Your task to perform on an android device: Clear the cart on target. Add usb-c to usb-b to the cart on target, then select checkout. Image 0: 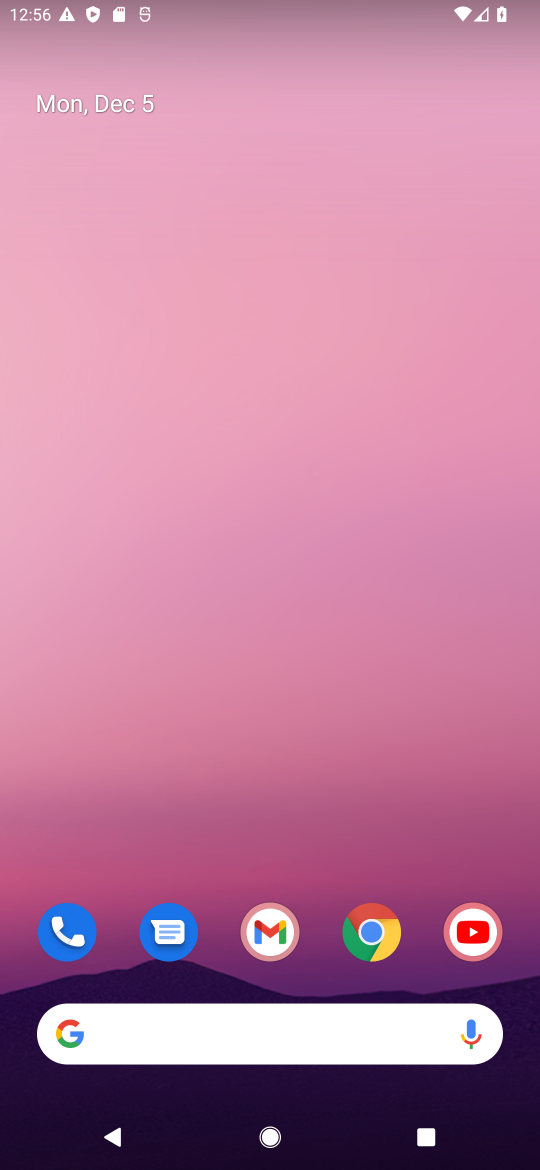
Step 0: click (356, 942)
Your task to perform on an android device: Clear the cart on target. Add usb-c to usb-b to the cart on target, then select checkout. Image 1: 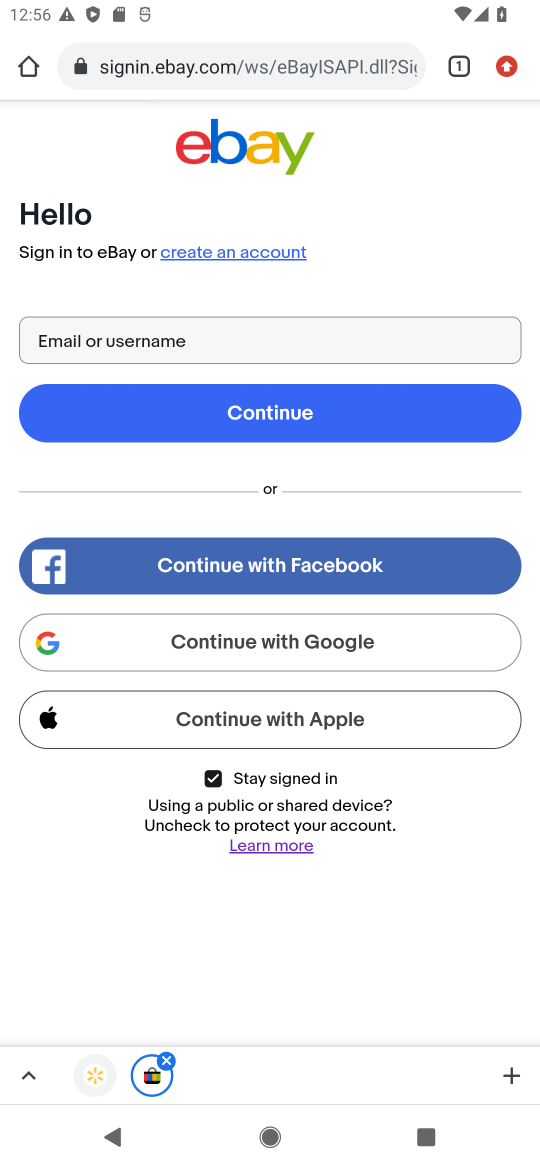
Step 1: click (205, 50)
Your task to perform on an android device: Clear the cart on target. Add usb-c to usb-b to the cart on target, then select checkout. Image 2: 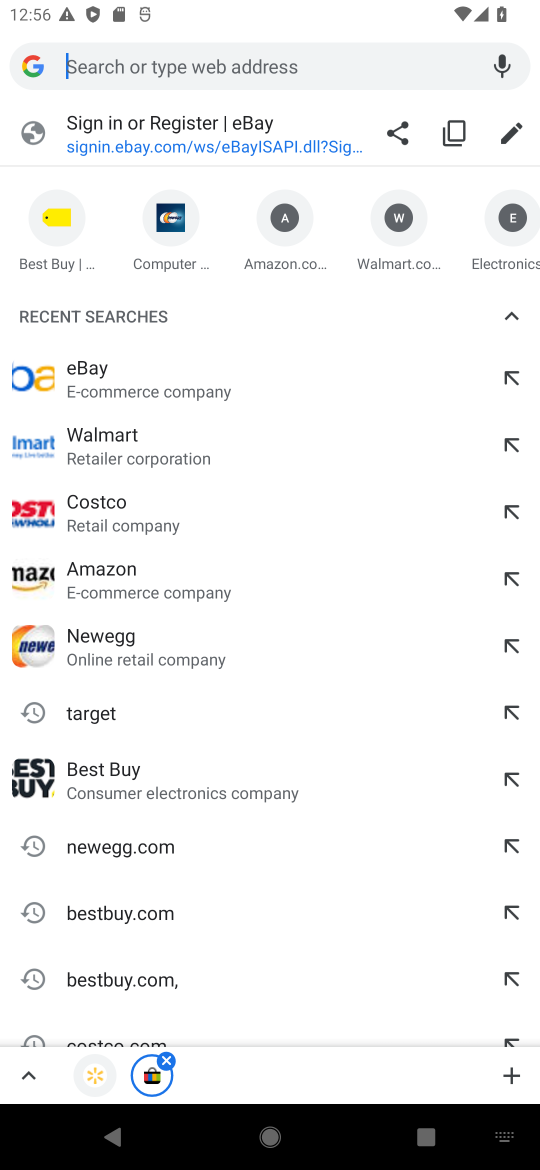
Step 2: click (115, 712)
Your task to perform on an android device: Clear the cart on target. Add usb-c to usb-b to the cart on target, then select checkout. Image 3: 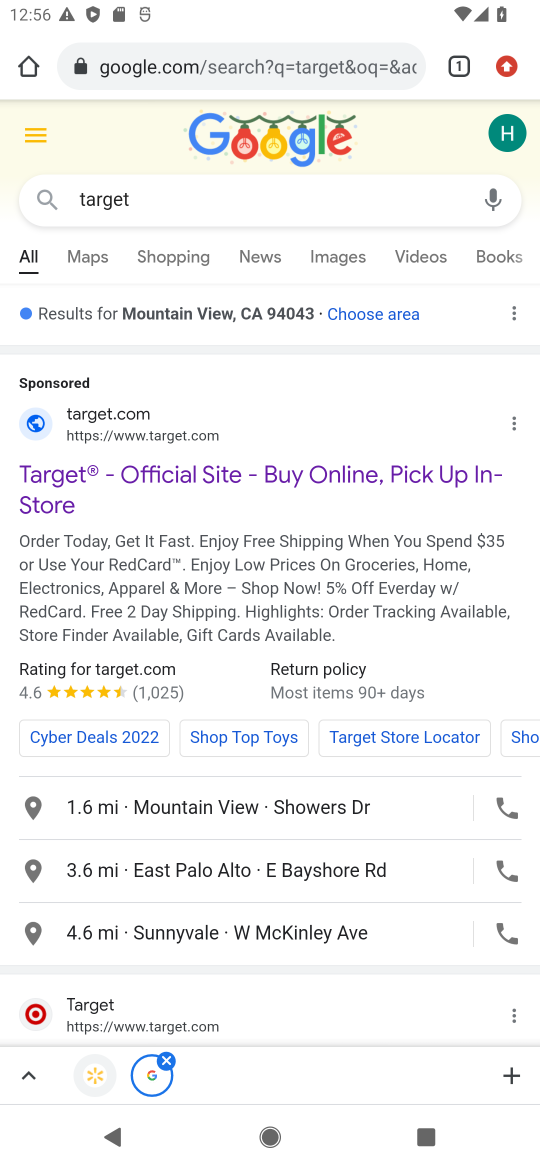
Step 3: click (180, 468)
Your task to perform on an android device: Clear the cart on target. Add usb-c to usb-b to the cart on target, then select checkout. Image 4: 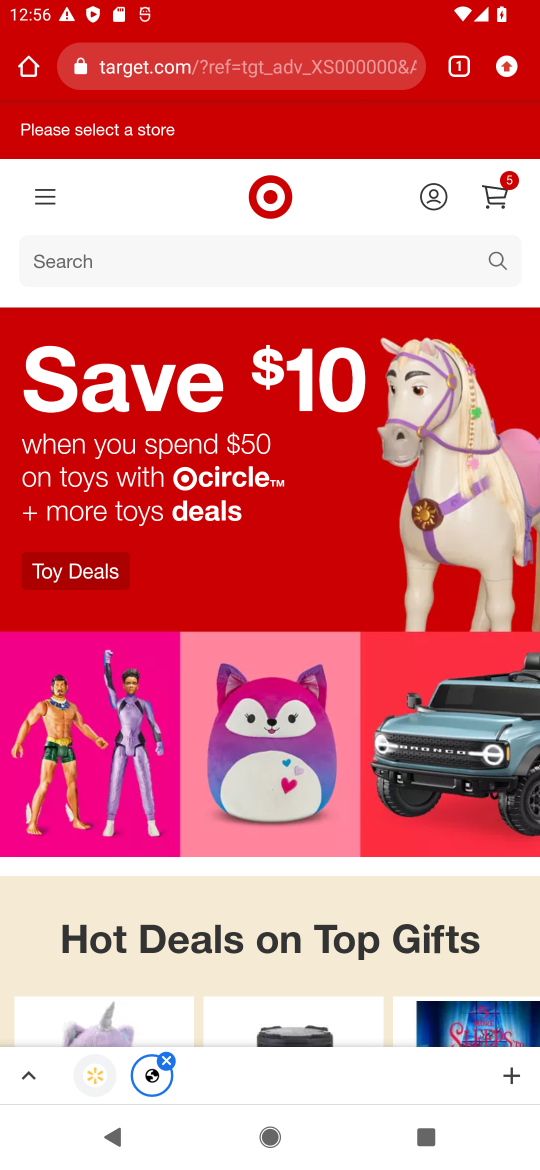
Step 4: click (293, 258)
Your task to perform on an android device: Clear the cart on target. Add usb-c to usb-b to the cart on target, then select checkout. Image 5: 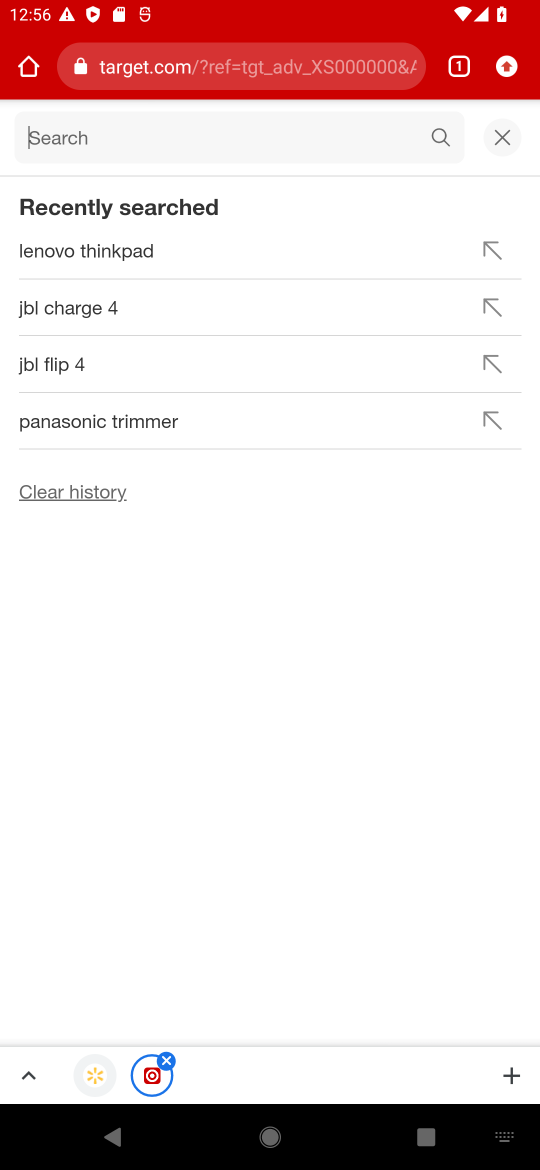
Step 5: type "usb-c to usb-b"
Your task to perform on an android device: Clear the cart on target. Add usb-c to usb-b to the cart on target, then select checkout. Image 6: 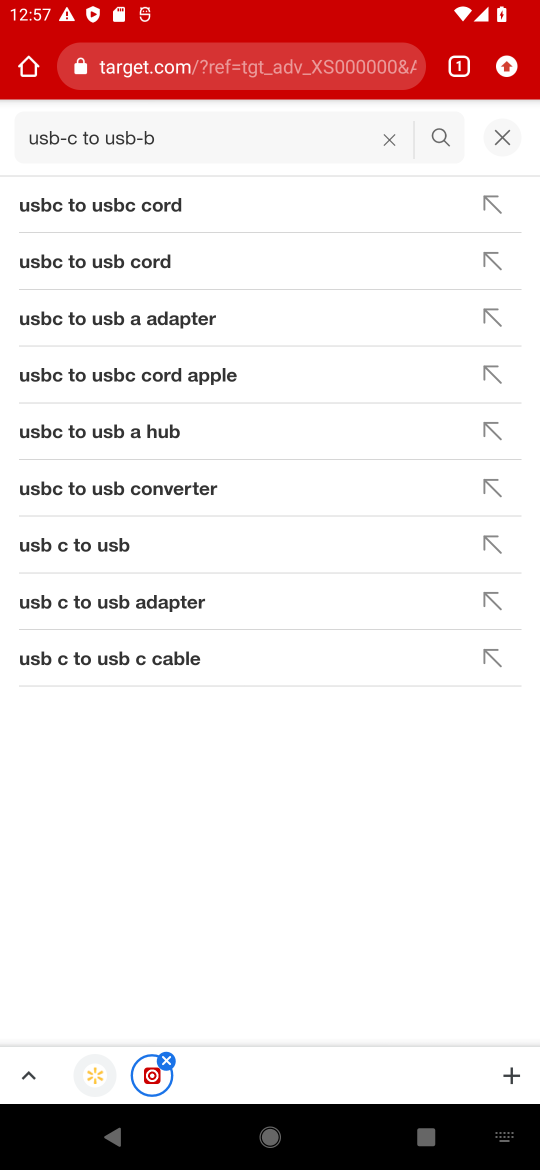
Step 6: click (148, 196)
Your task to perform on an android device: Clear the cart on target. Add usb-c to usb-b to the cart on target, then select checkout. Image 7: 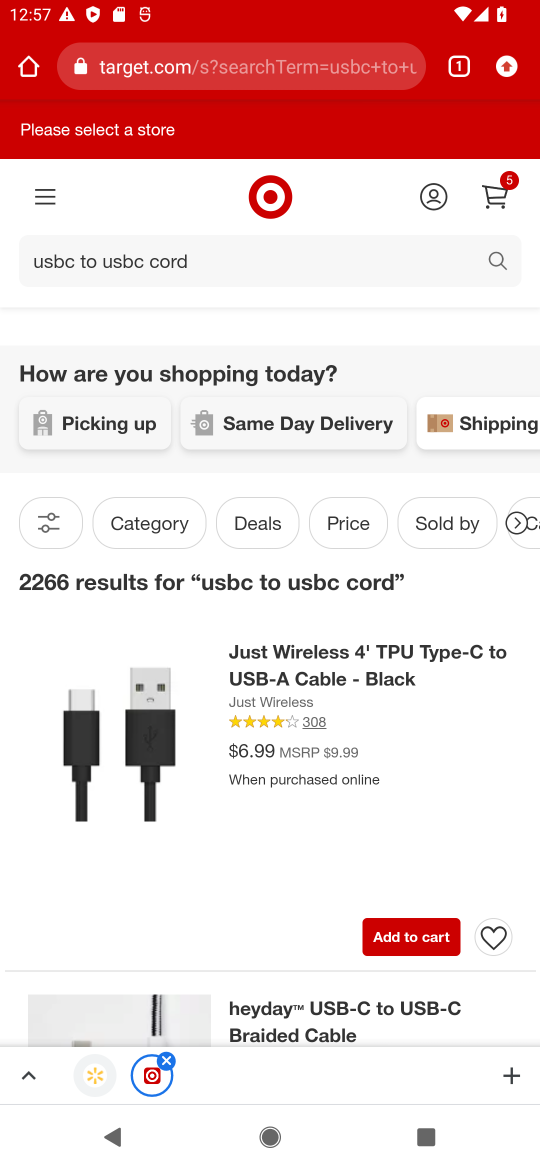
Step 7: click (396, 934)
Your task to perform on an android device: Clear the cart on target. Add usb-c to usb-b to the cart on target, then select checkout. Image 8: 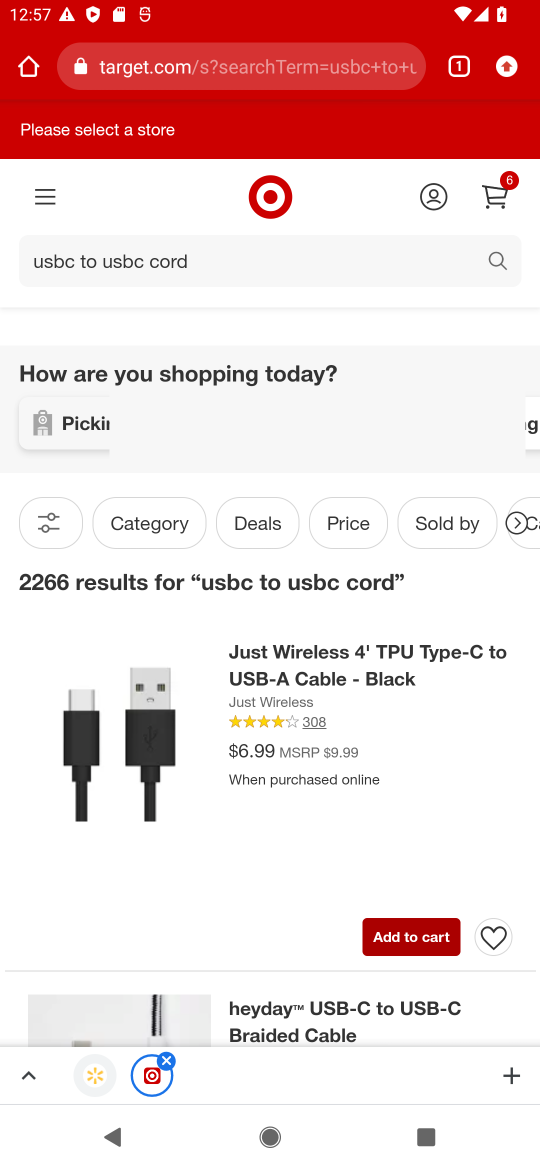
Step 8: click (500, 183)
Your task to perform on an android device: Clear the cart on target. Add usb-c to usb-b to the cart on target, then select checkout. Image 9: 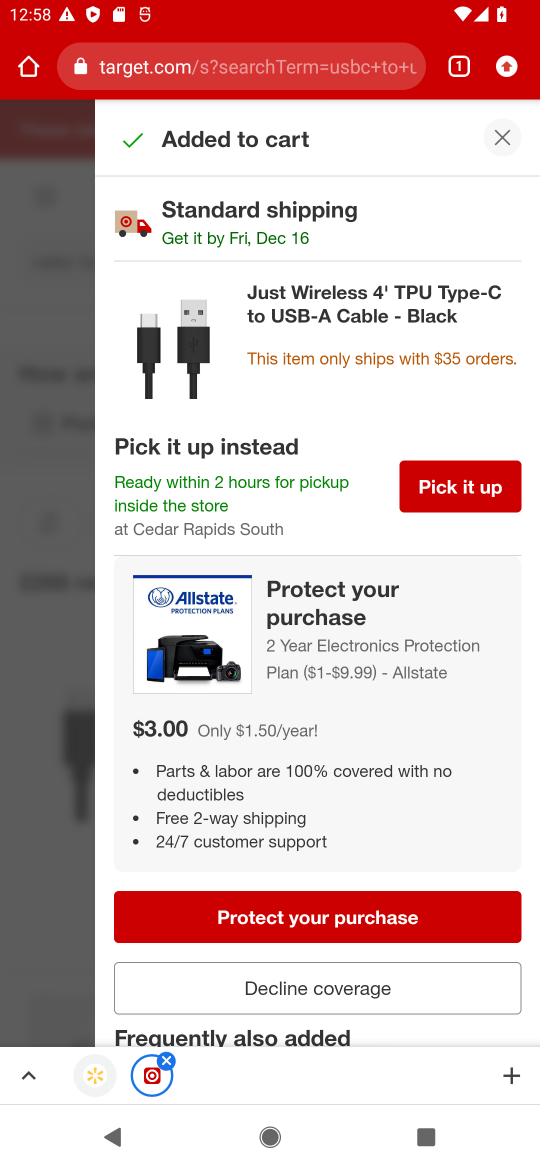
Step 9: click (503, 134)
Your task to perform on an android device: Clear the cart on target. Add usb-c to usb-b to the cart on target, then select checkout. Image 10: 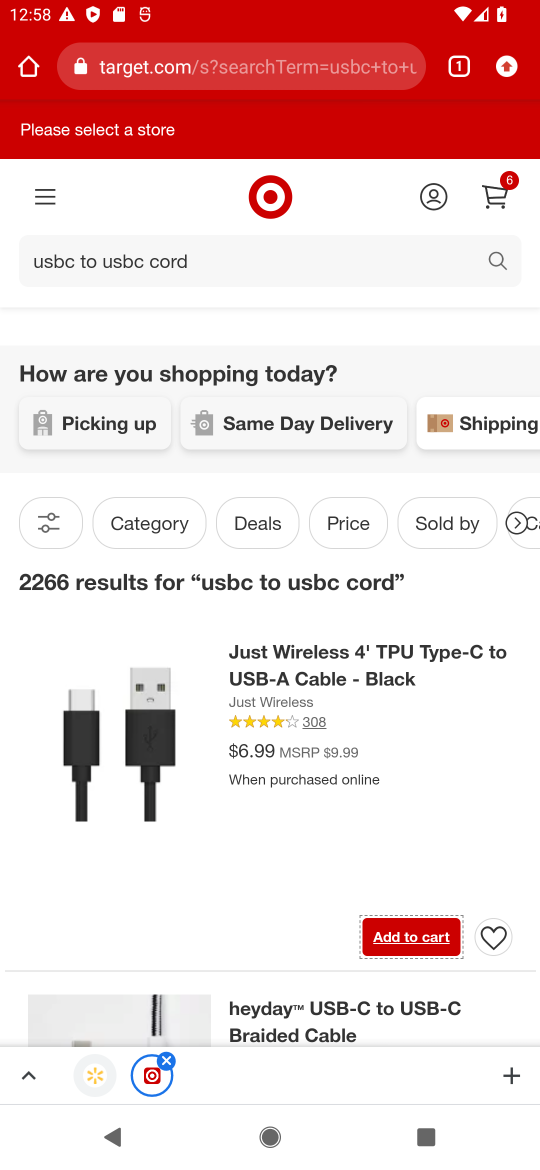
Step 10: click (506, 178)
Your task to perform on an android device: Clear the cart on target. Add usb-c to usb-b to the cart on target, then select checkout. Image 11: 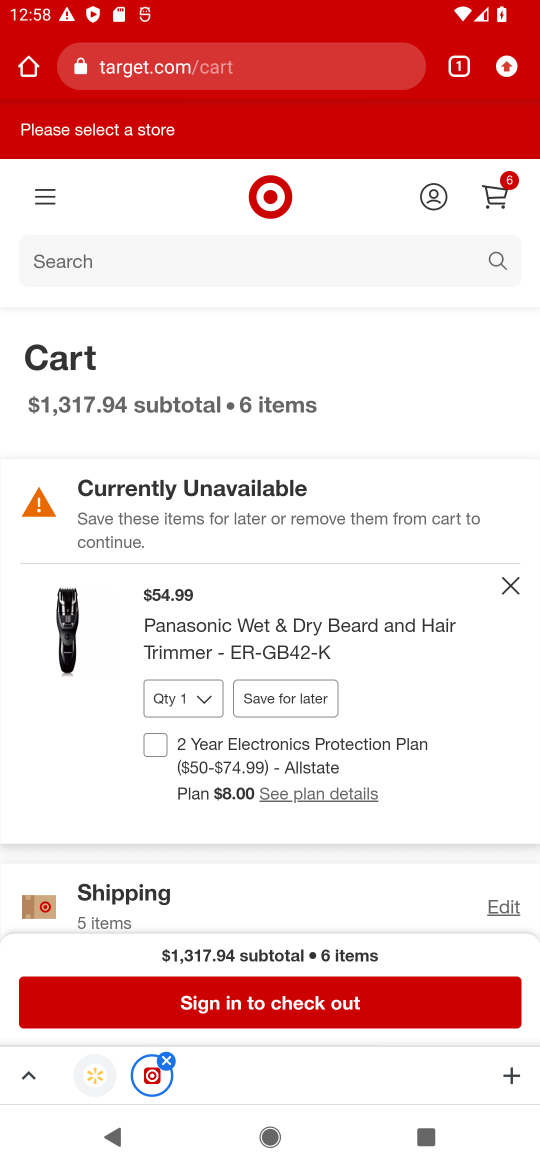
Step 11: drag from (408, 793) to (361, 654)
Your task to perform on an android device: Clear the cart on target. Add usb-c to usb-b to the cart on target, then select checkout. Image 12: 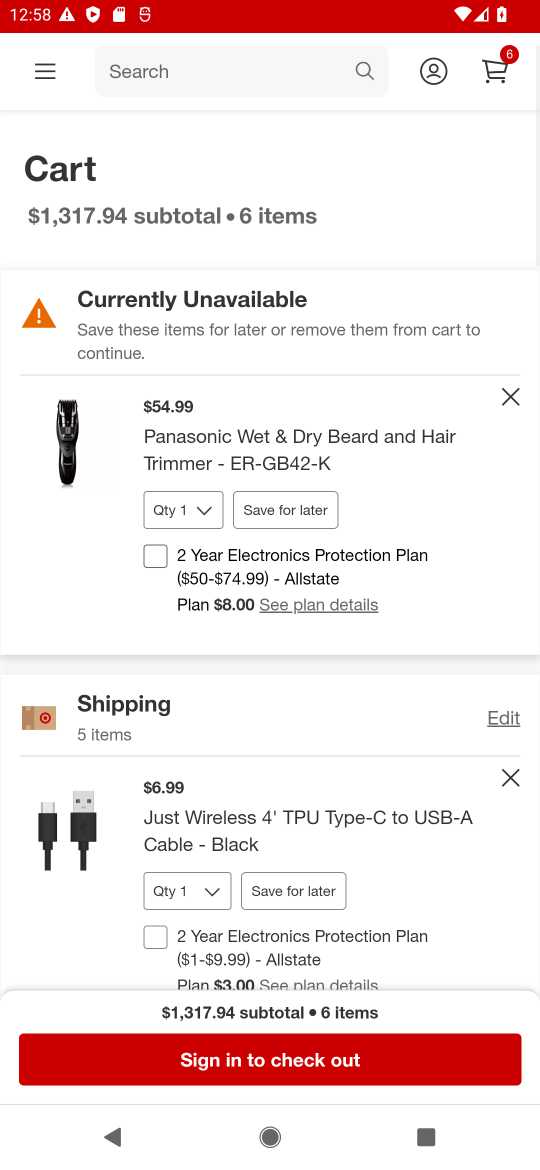
Step 12: click (510, 394)
Your task to perform on an android device: Clear the cart on target. Add usb-c to usb-b to the cart on target, then select checkout. Image 13: 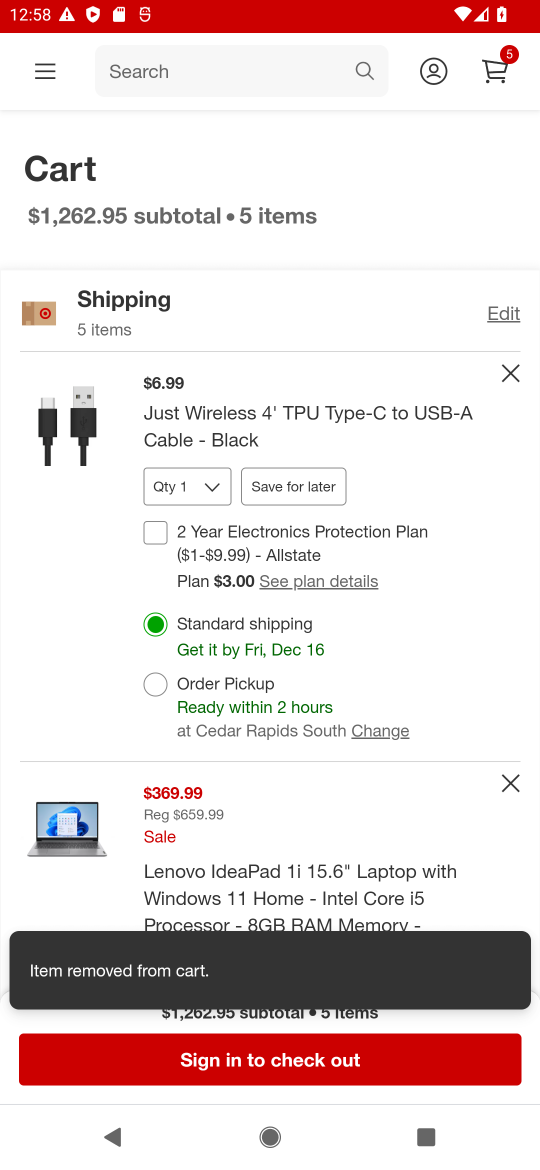
Step 13: click (508, 369)
Your task to perform on an android device: Clear the cart on target. Add usb-c to usb-b to the cart on target, then select checkout. Image 14: 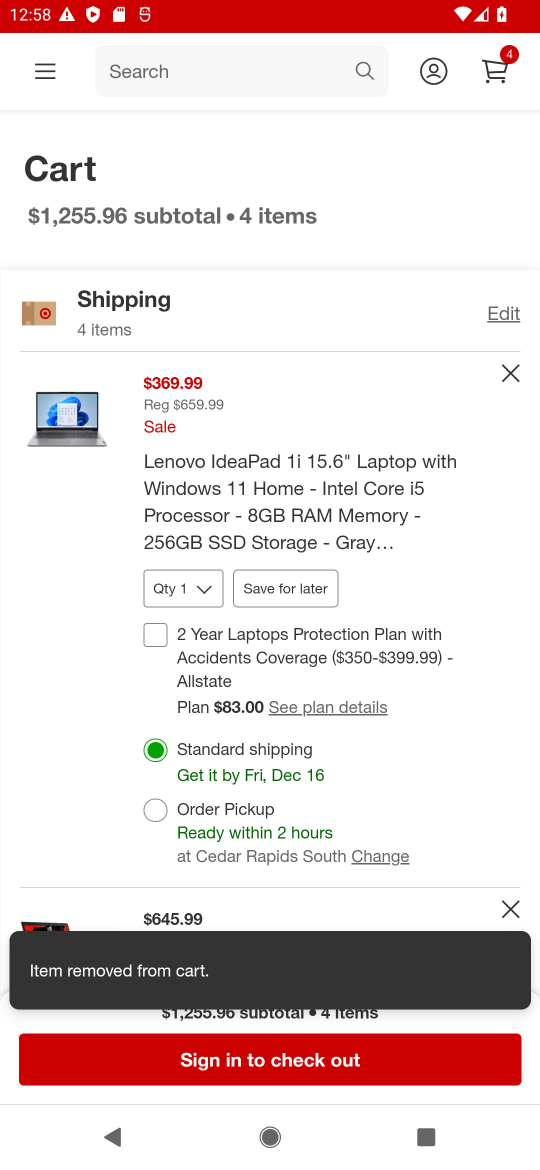
Step 14: click (508, 369)
Your task to perform on an android device: Clear the cart on target. Add usb-c to usb-b to the cart on target, then select checkout. Image 15: 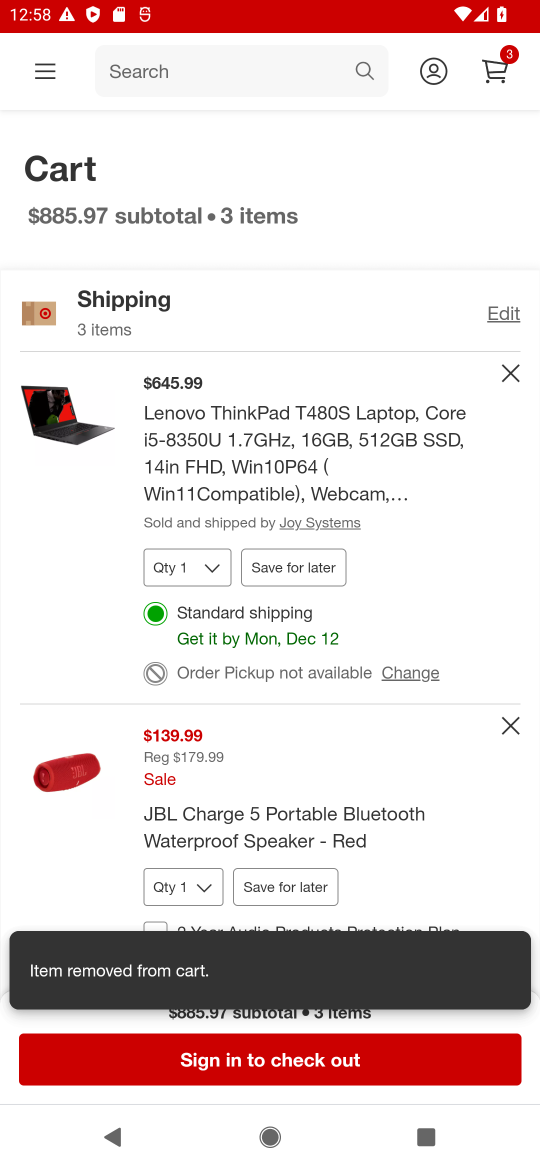
Step 15: click (508, 369)
Your task to perform on an android device: Clear the cart on target. Add usb-c to usb-b to the cart on target, then select checkout. Image 16: 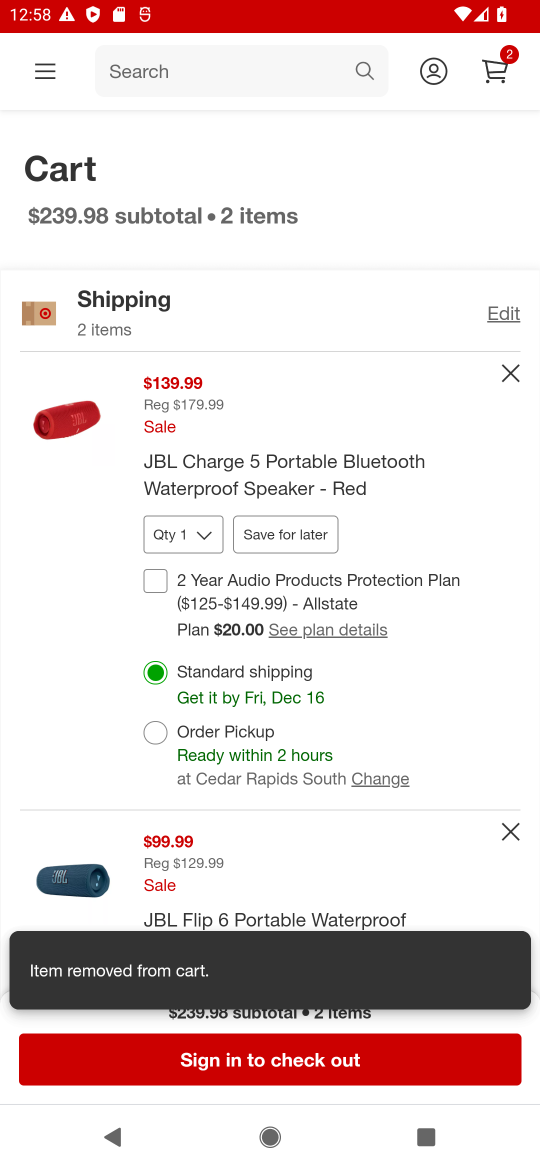
Step 16: click (508, 369)
Your task to perform on an android device: Clear the cart on target. Add usb-c to usb-b to the cart on target, then select checkout. Image 17: 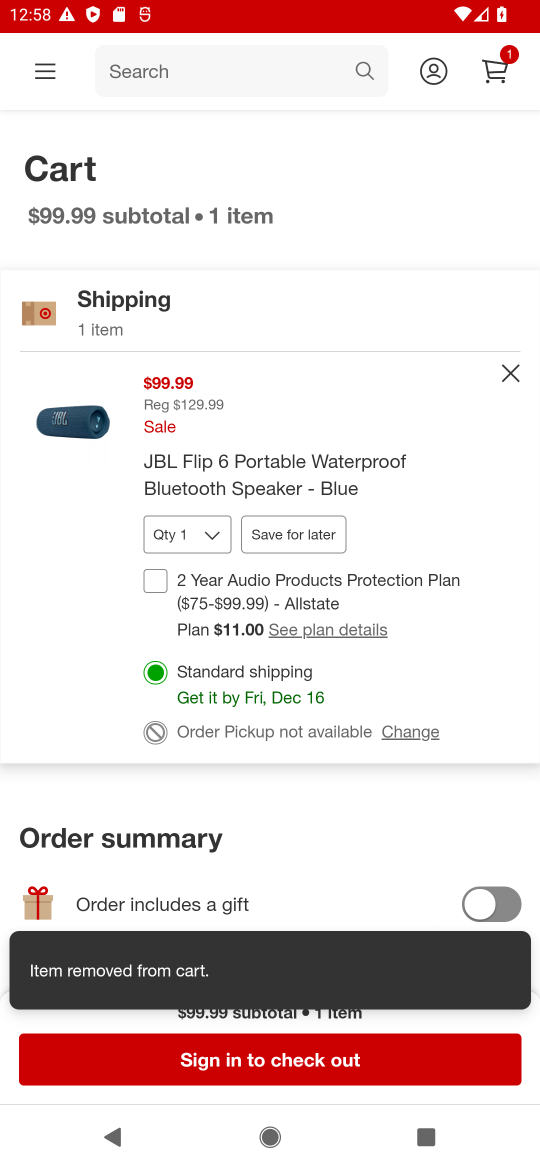
Step 17: click (508, 369)
Your task to perform on an android device: Clear the cart on target. Add usb-c to usb-b to the cart on target, then select checkout. Image 18: 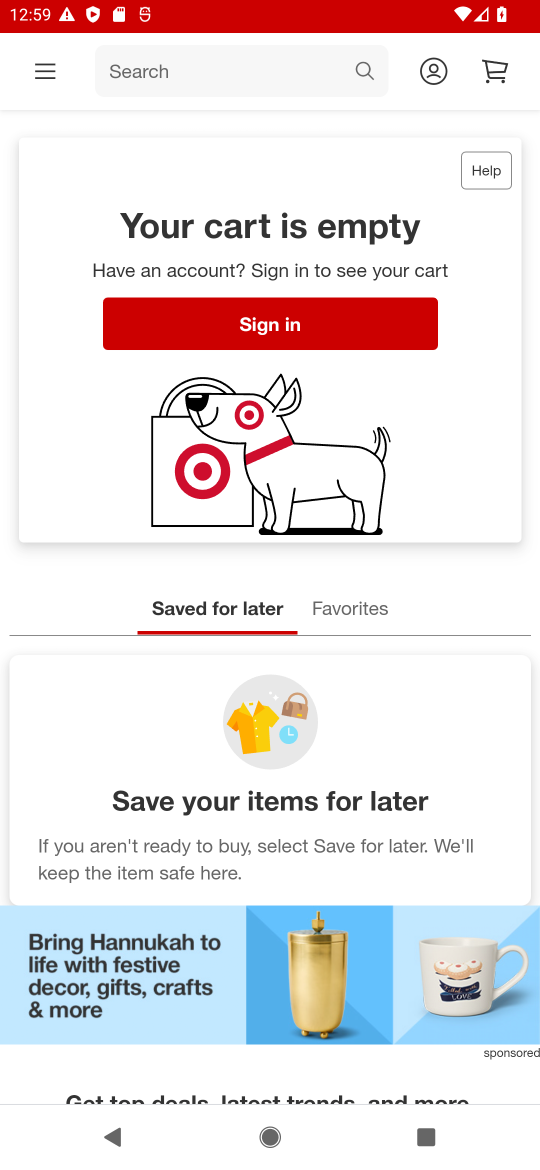
Step 18: click (194, 59)
Your task to perform on an android device: Clear the cart on target. Add usb-c to usb-b to the cart on target, then select checkout. Image 19: 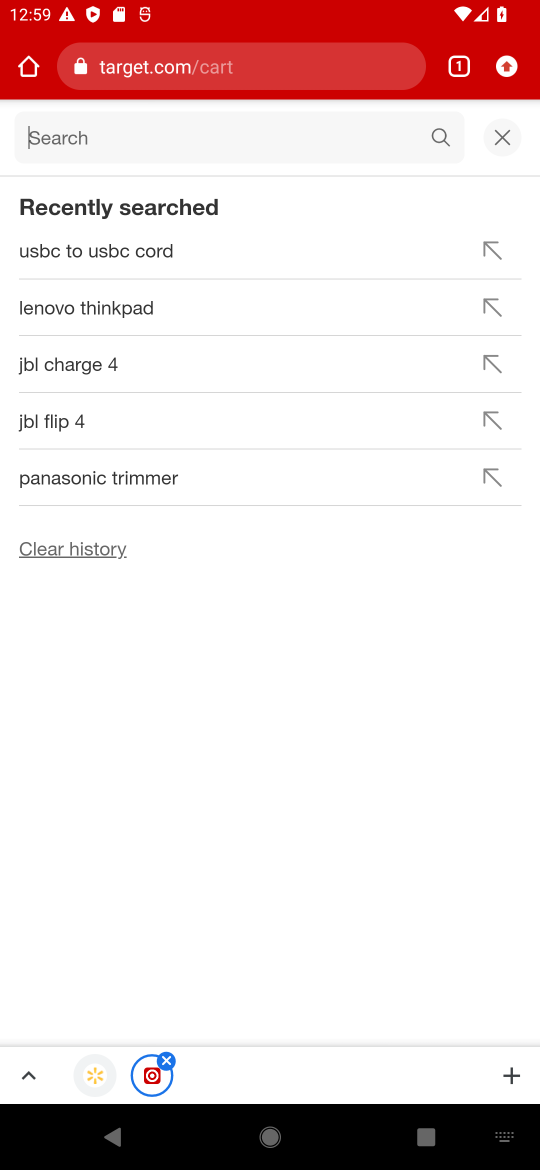
Step 19: type "usb-c to usb-b"
Your task to perform on an android device: Clear the cart on target. Add usb-c to usb-b to the cart on target, then select checkout. Image 20: 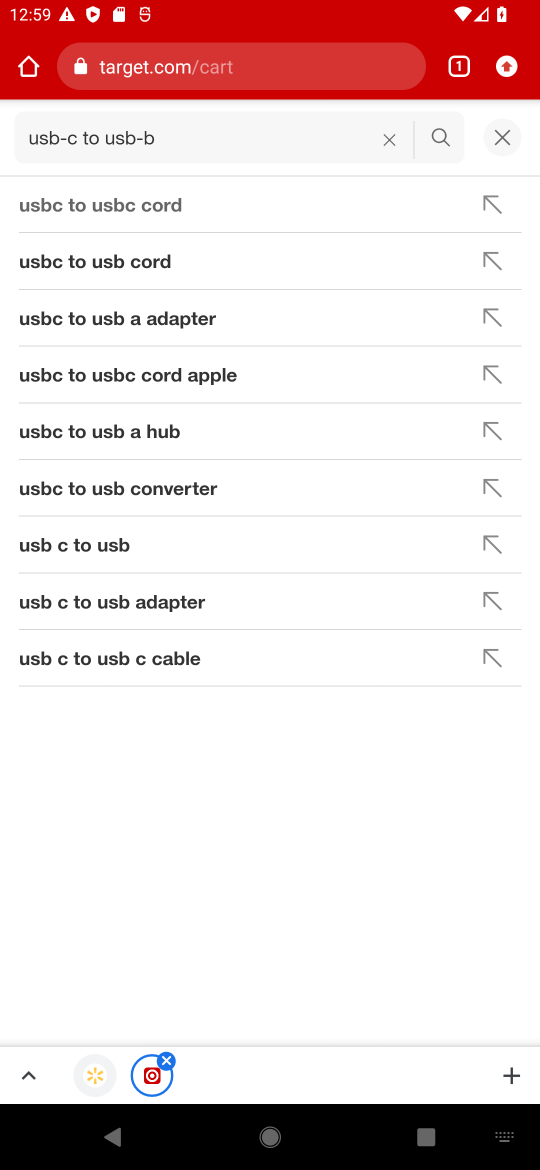
Step 20: click (181, 206)
Your task to perform on an android device: Clear the cart on target. Add usb-c to usb-b to the cart on target, then select checkout. Image 21: 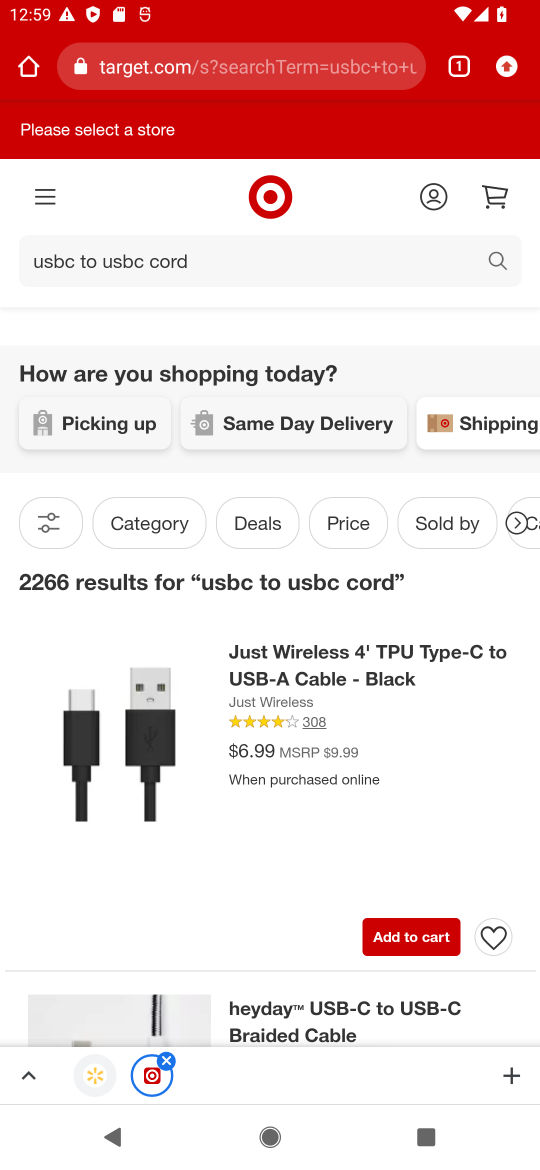
Step 21: click (415, 935)
Your task to perform on an android device: Clear the cart on target. Add usb-c to usb-b to the cart on target, then select checkout. Image 22: 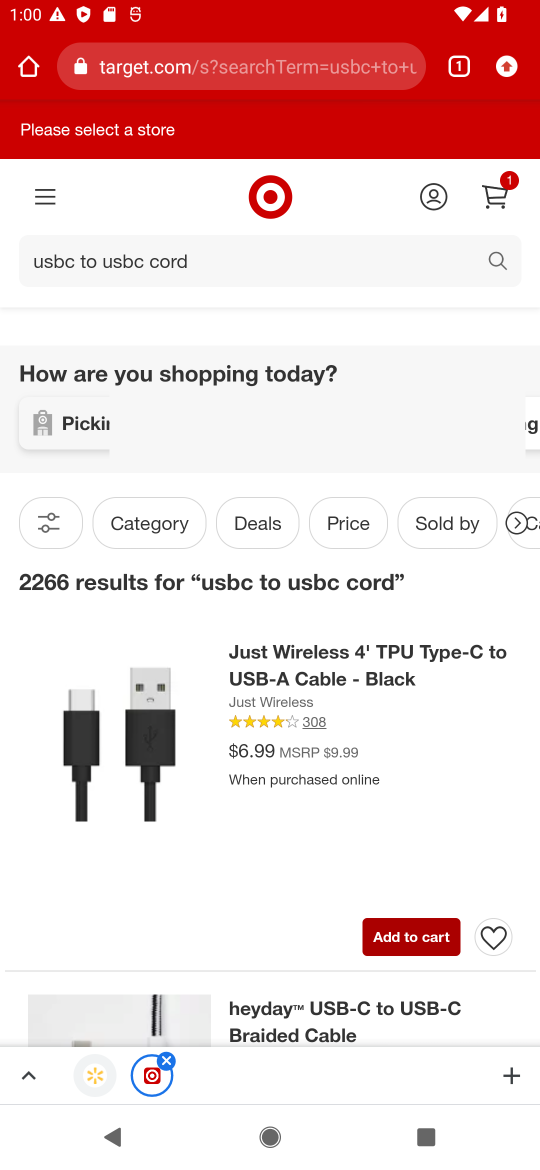
Step 22: click (491, 193)
Your task to perform on an android device: Clear the cart on target. Add usb-c to usb-b to the cart on target, then select checkout. Image 23: 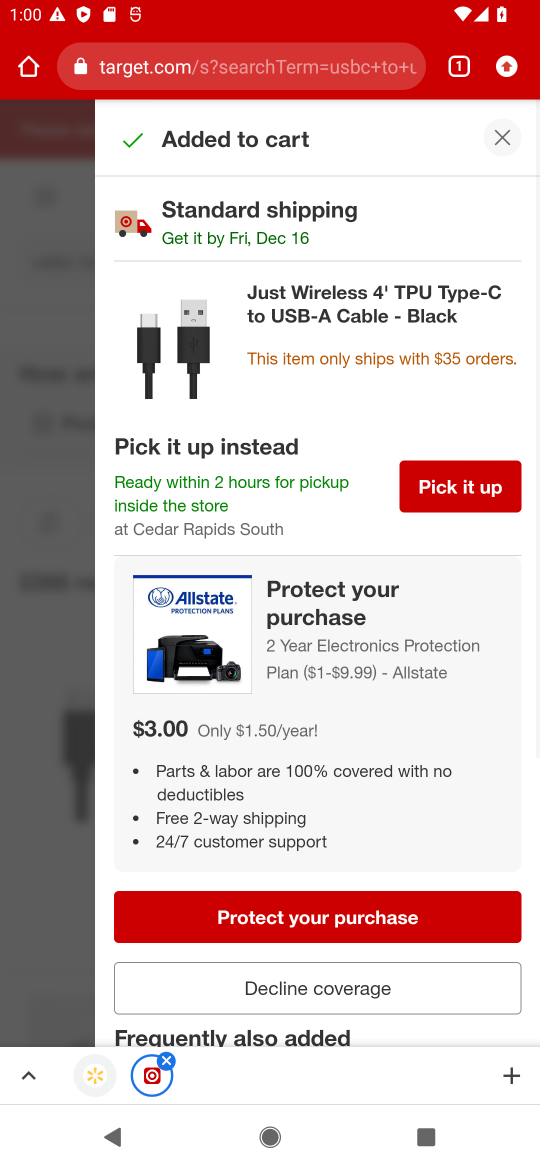
Step 23: click (305, 984)
Your task to perform on an android device: Clear the cart on target. Add usb-c to usb-b to the cart on target, then select checkout. Image 24: 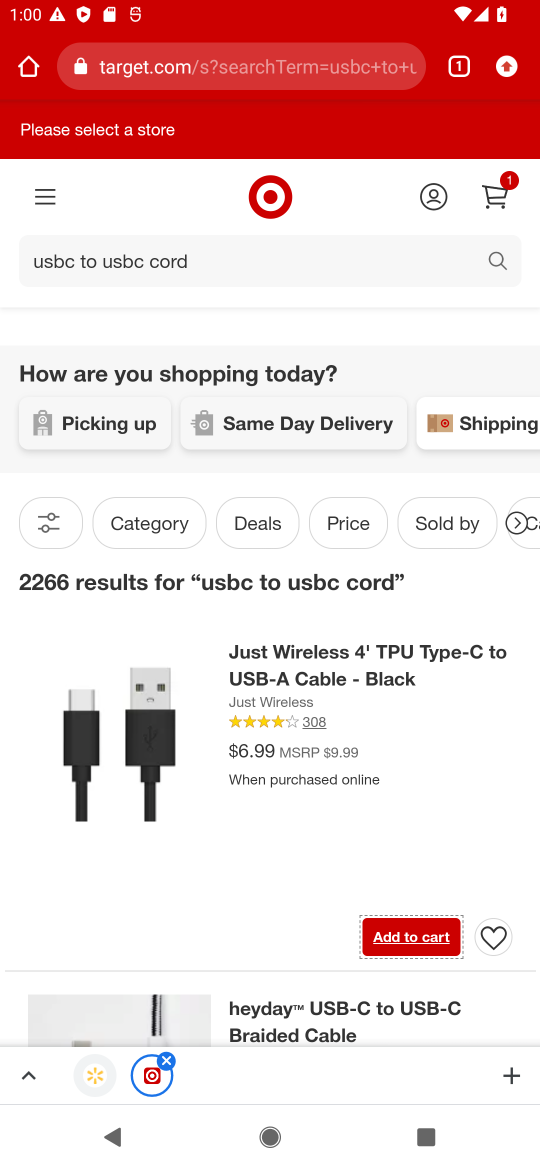
Step 24: click (494, 194)
Your task to perform on an android device: Clear the cart on target. Add usb-c to usb-b to the cart on target, then select checkout. Image 25: 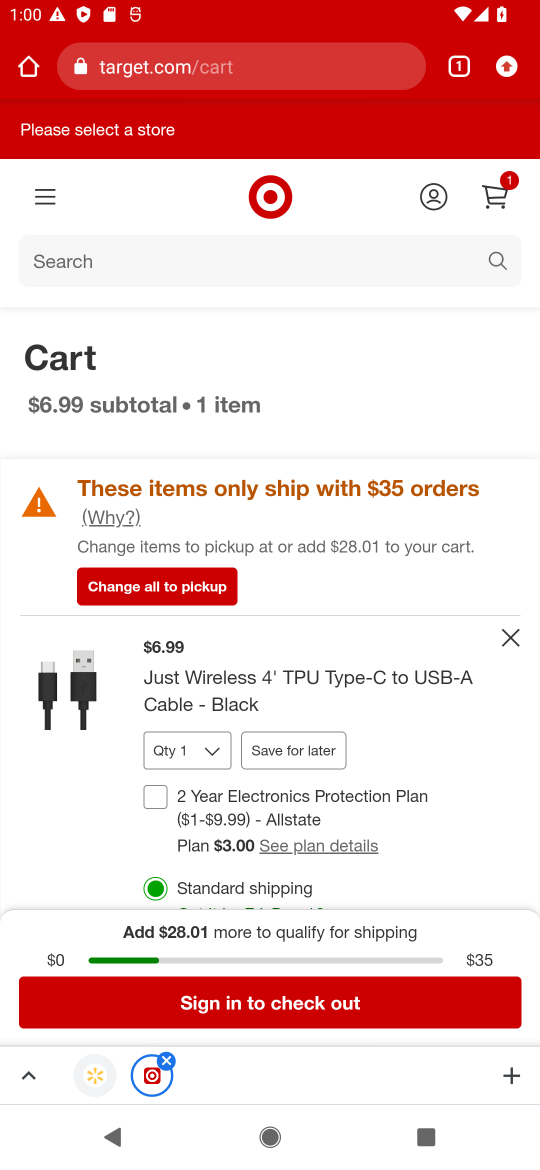
Step 25: click (193, 1007)
Your task to perform on an android device: Clear the cart on target. Add usb-c to usb-b to the cart on target, then select checkout. Image 26: 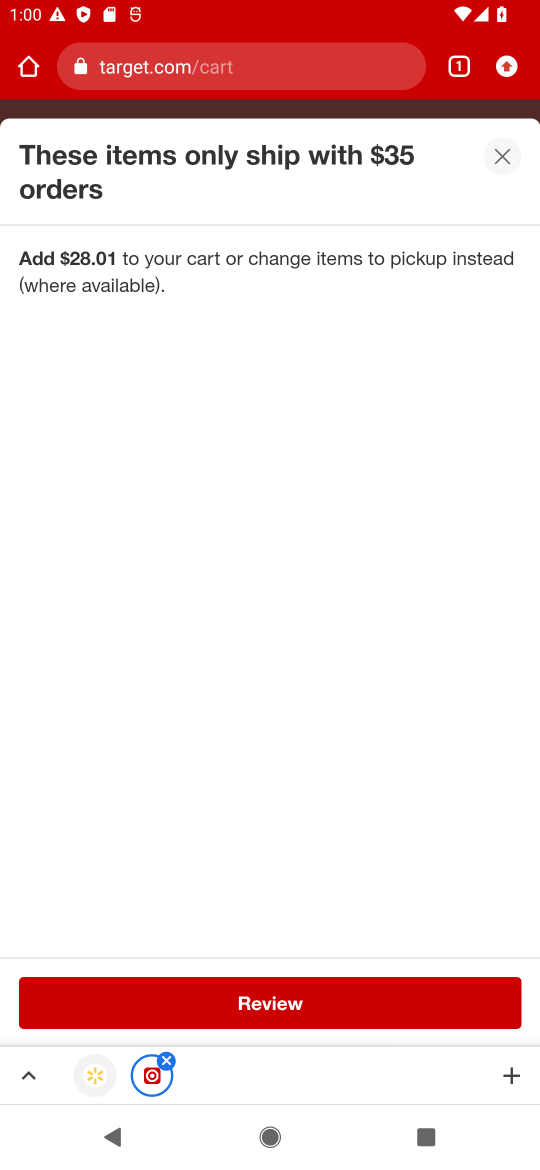
Step 26: task complete